Your task to perform on an android device: Search for asus rog on ebay, select the first entry, and add it to the cart. Image 0: 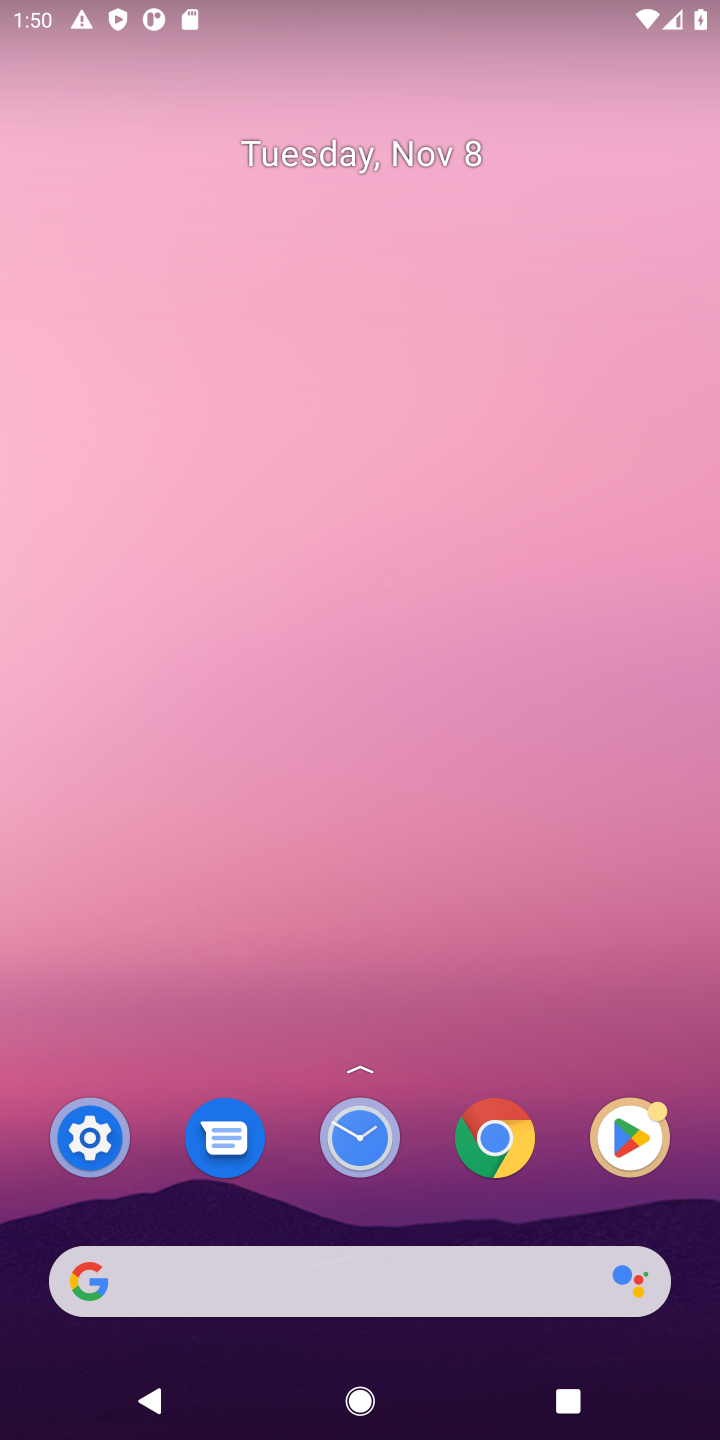
Step 0: click (511, 1148)
Your task to perform on an android device: Search for asus rog on ebay, select the first entry, and add it to the cart. Image 1: 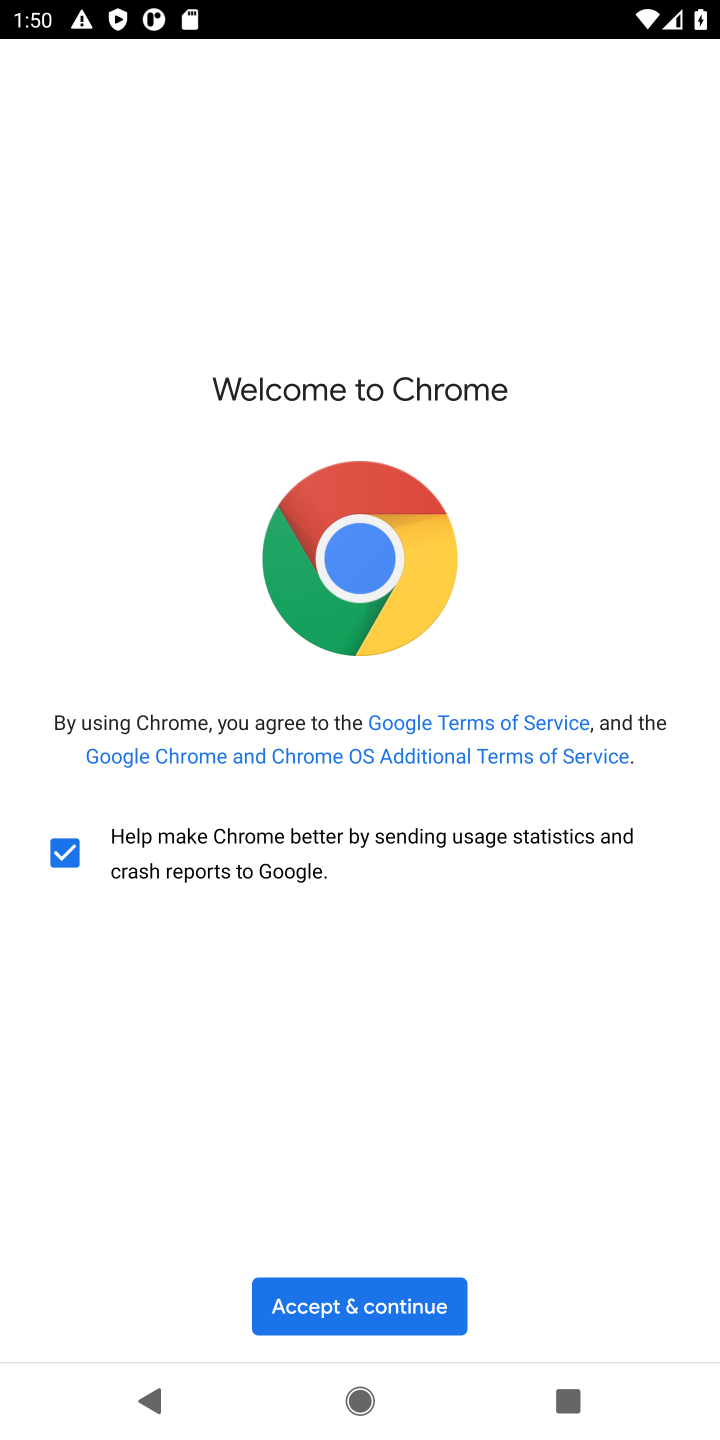
Step 1: click (366, 1320)
Your task to perform on an android device: Search for asus rog on ebay, select the first entry, and add it to the cart. Image 2: 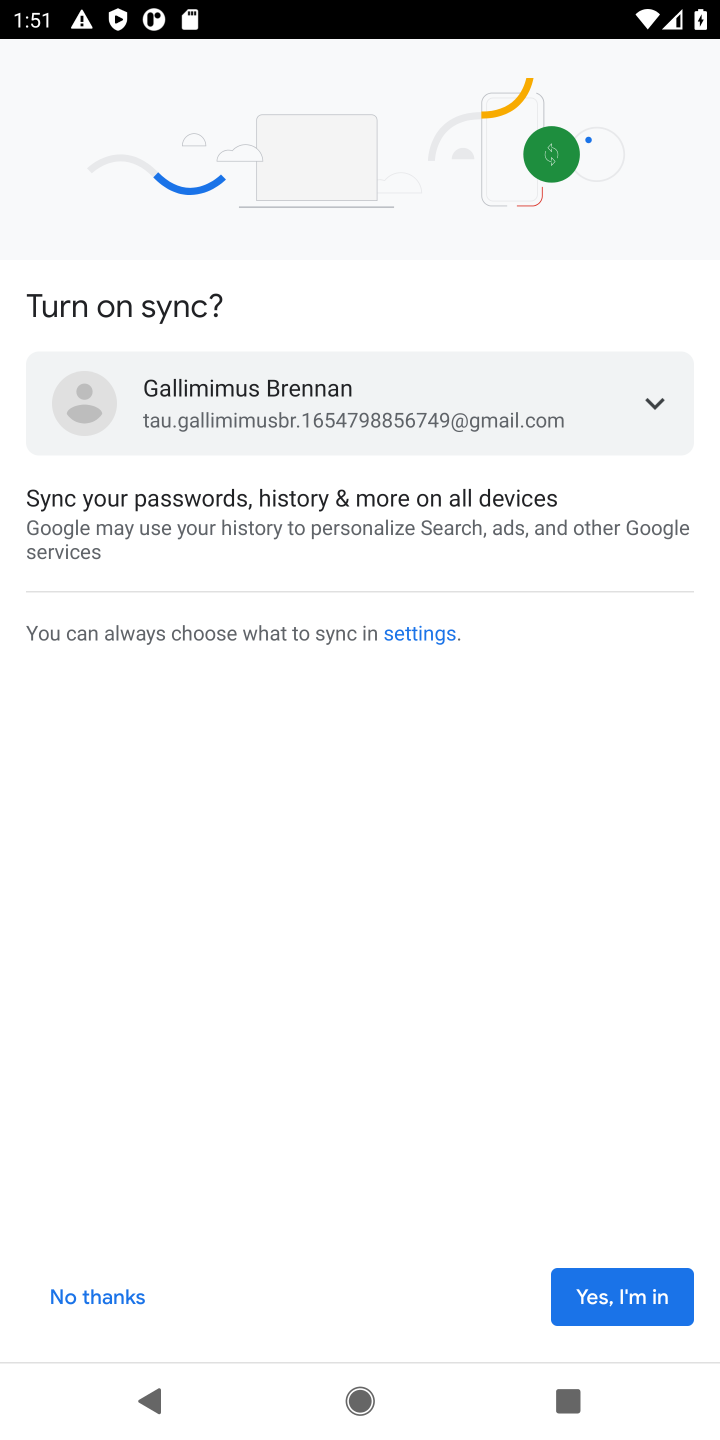
Step 2: click (642, 1313)
Your task to perform on an android device: Search for asus rog on ebay, select the first entry, and add it to the cart. Image 3: 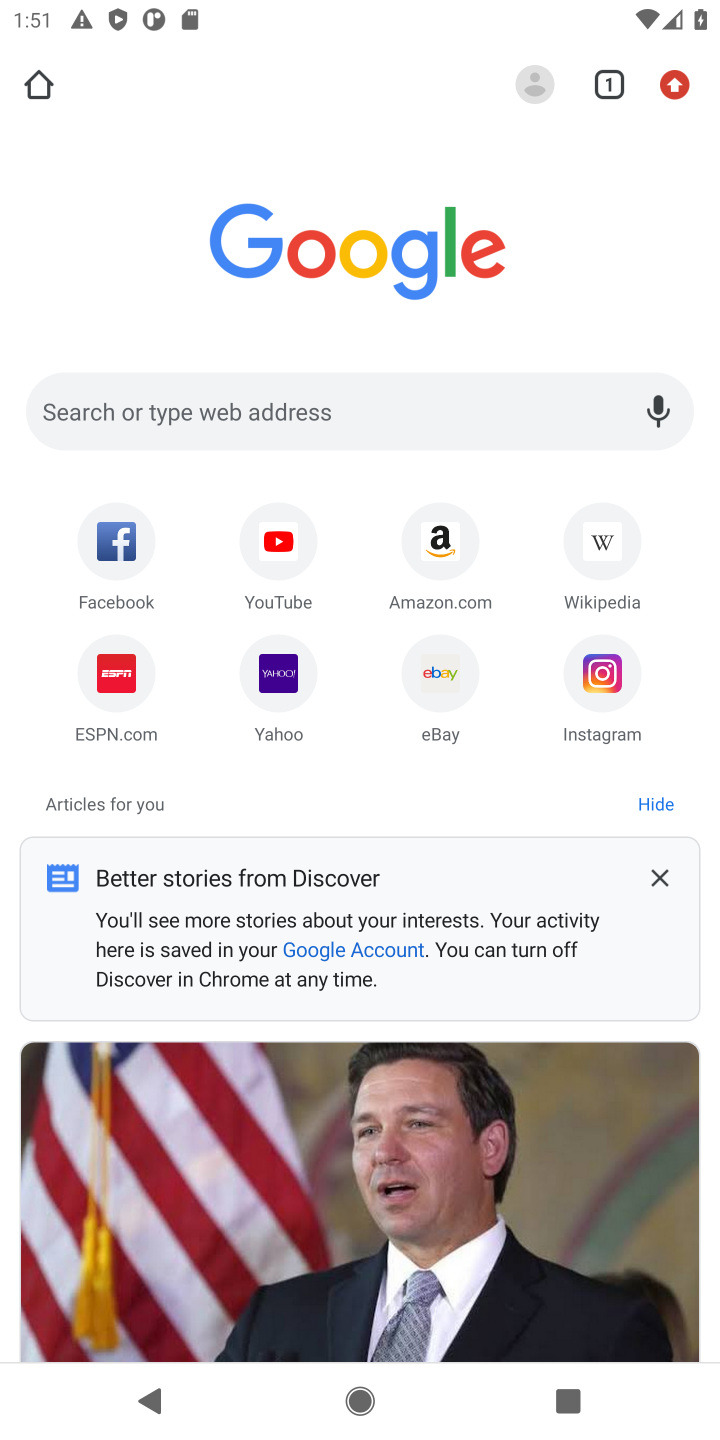
Step 3: click (467, 420)
Your task to perform on an android device: Search for asus rog on ebay, select the first entry, and add it to the cart. Image 4: 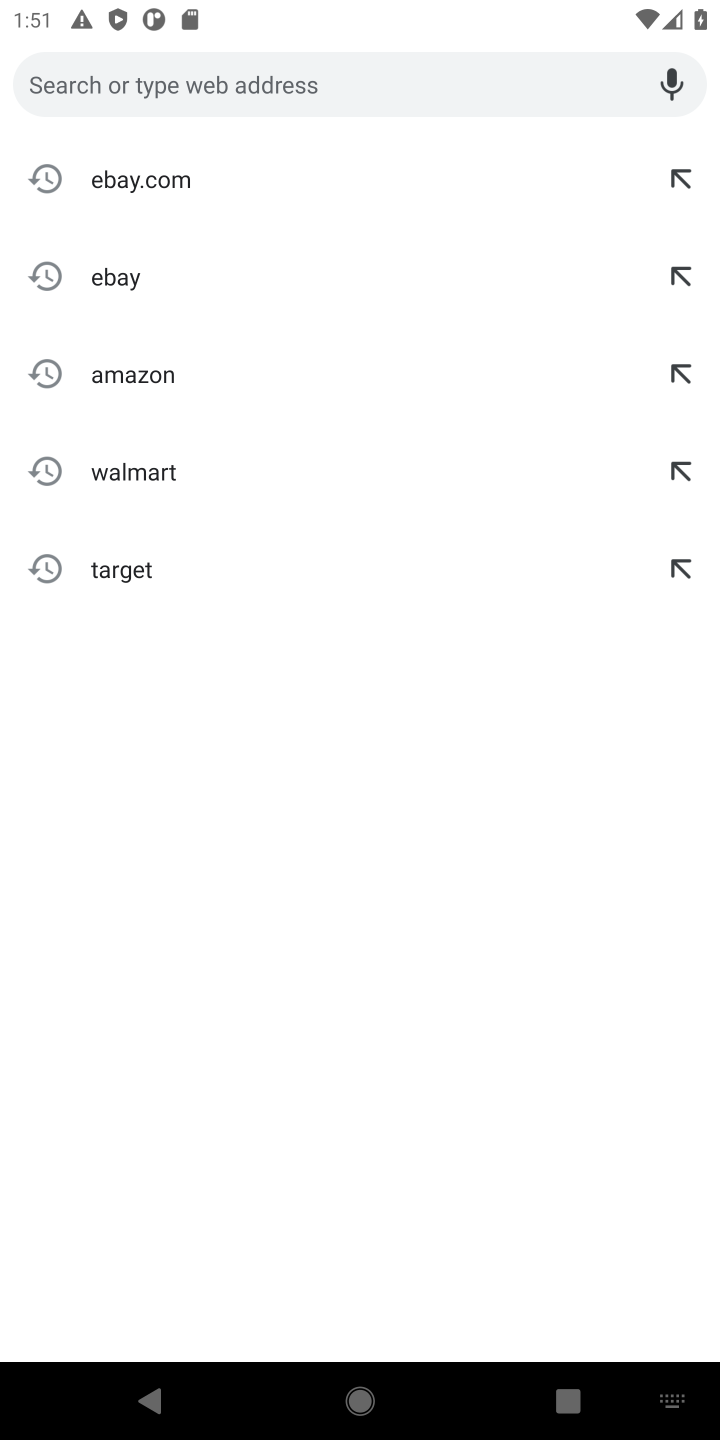
Step 4: click (131, 272)
Your task to perform on an android device: Search for asus rog on ebay, select the first entry, and add it to the cart. Image 5: 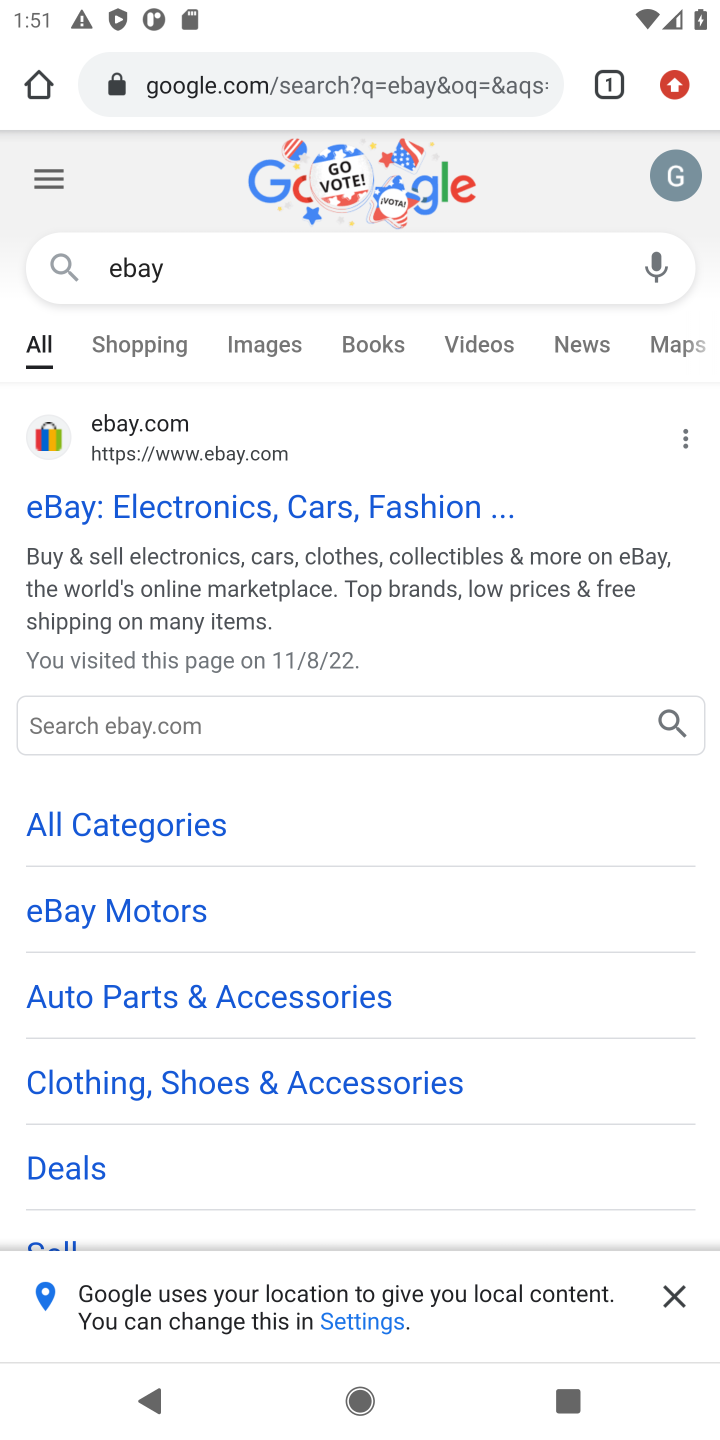
Step 5: click (193, 471)
Your task to perform on an android device: Search for asus rog on ebay, select the first entry, and add it to the cart. Image 6: 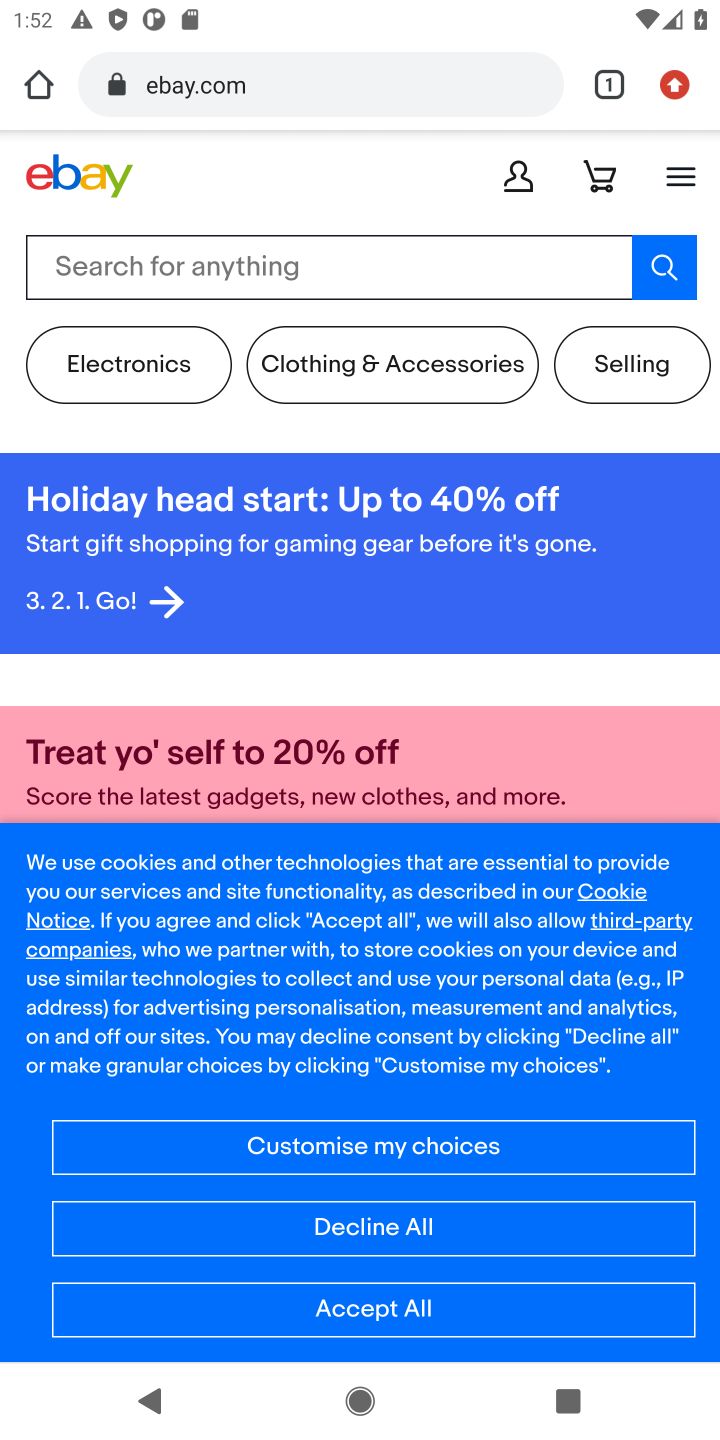
Step 6: click (304, 277)
Your task to perform on an android device: Search for asus rog on ebay, select the first entry, and add it to the cart. Image 7: 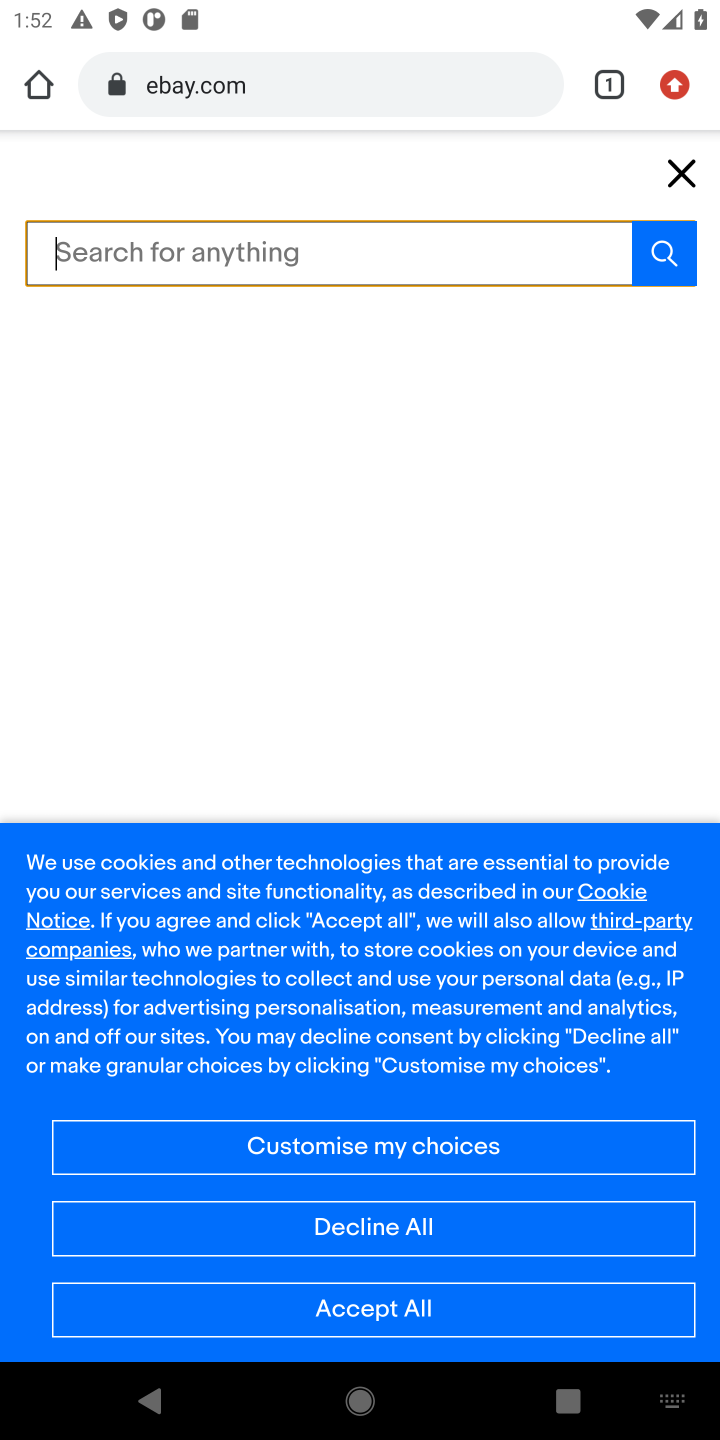
Step 7: click (390, 259)
Your task to perform on an android device: Search for asus rog on ebay, select the first entry, and add it to the cart. Image 8: 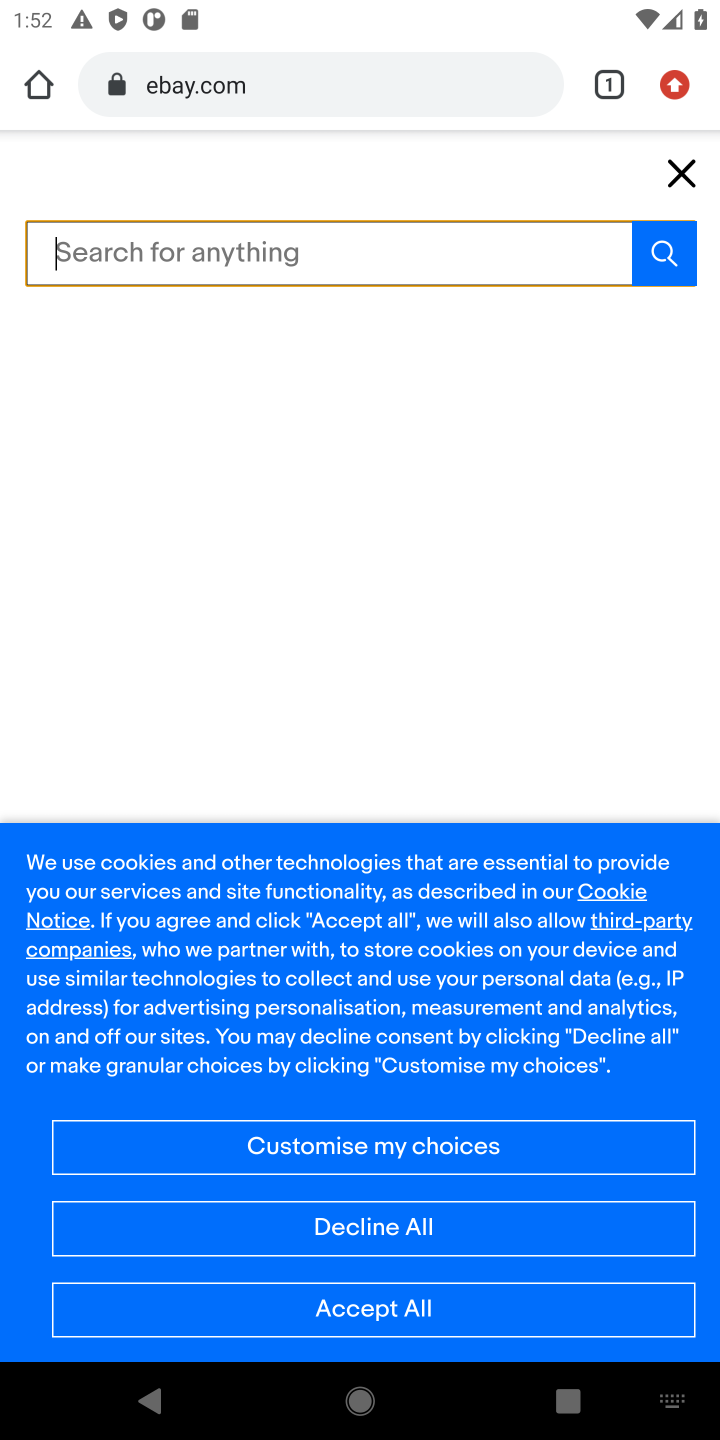
Step 8: type "asus rog"
Your task to perform on an android device: Search for asus rog on ebay, select the first entry, and add it to the cart. Image 9: 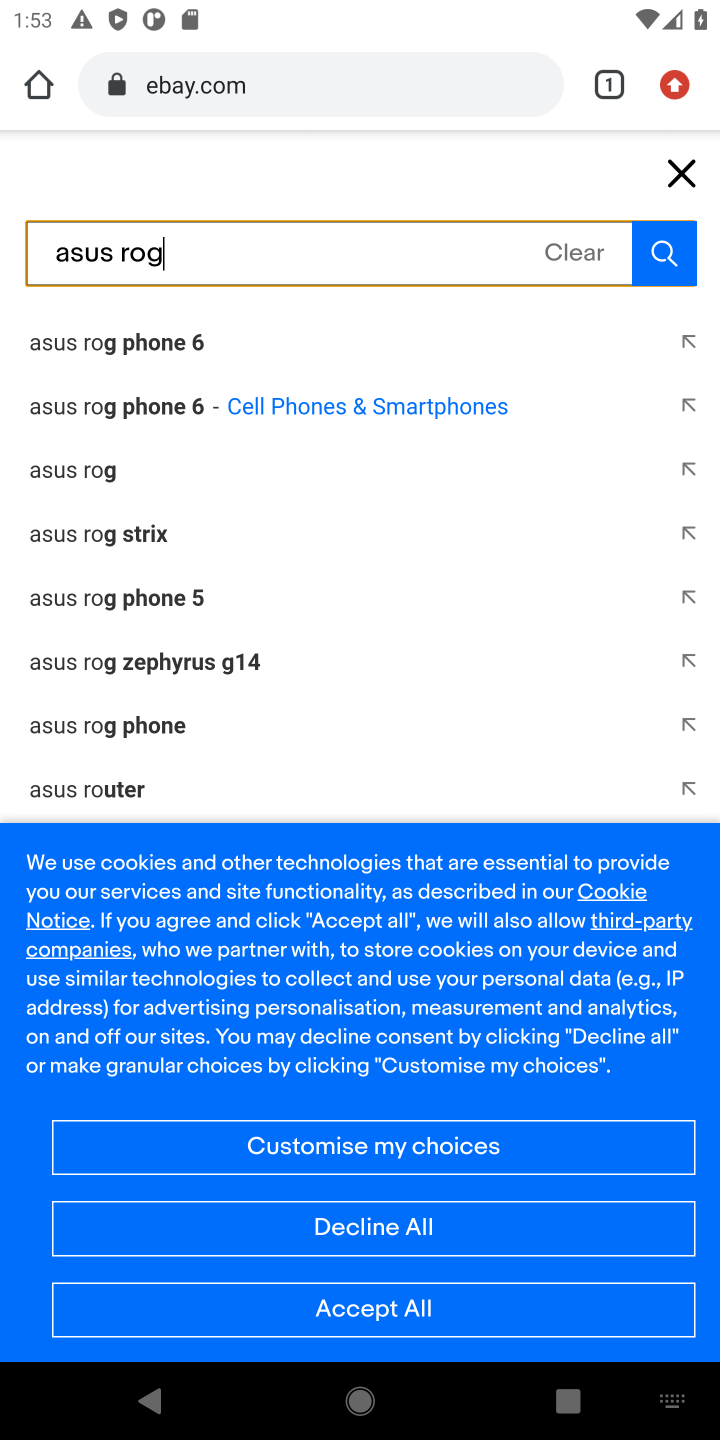
Step 9: click (111, 469)
Your task to perform on an android device: Search for asus rog on ebay, select the first entry, and add it to the cart. Image 10: 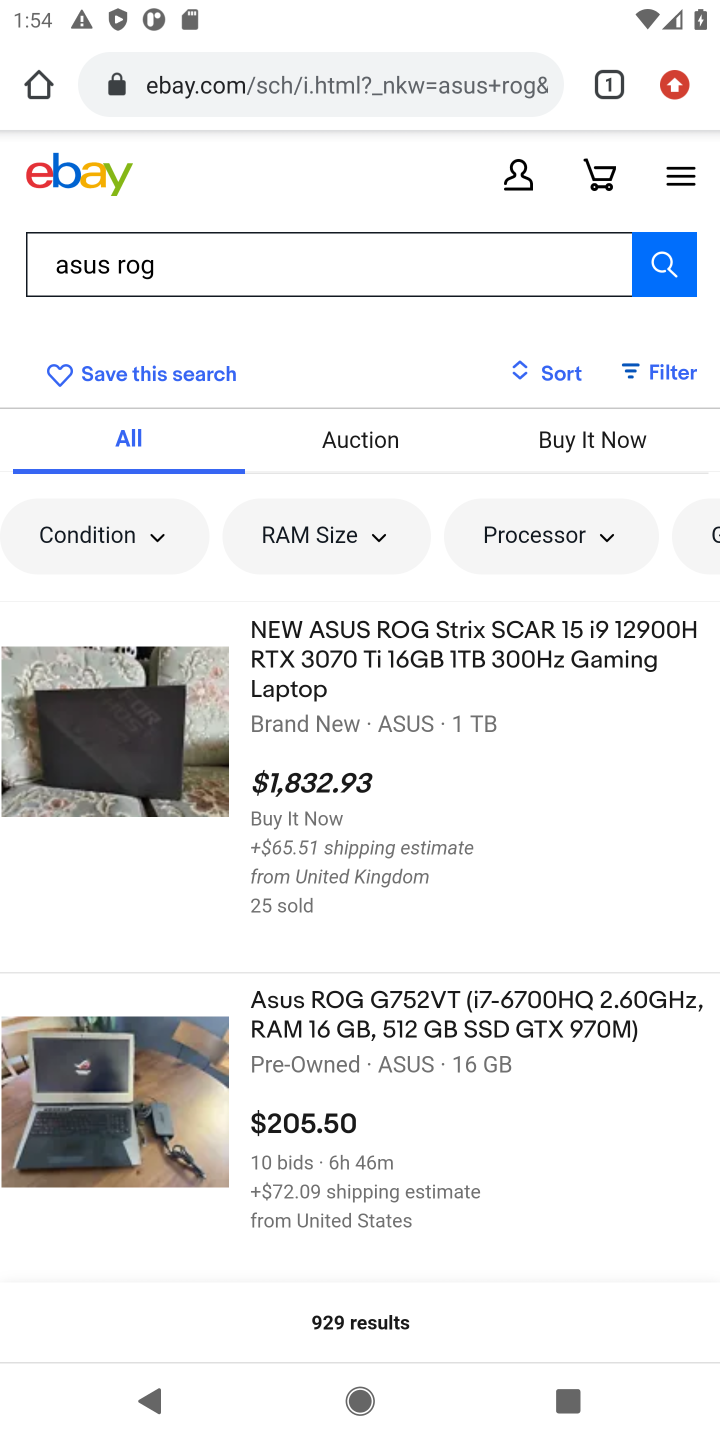
Step 10: click (112, 741)
Your task to perform on an android device: Search for asus rog on ebay, select the first entry, and add it to the cart. Image 11: 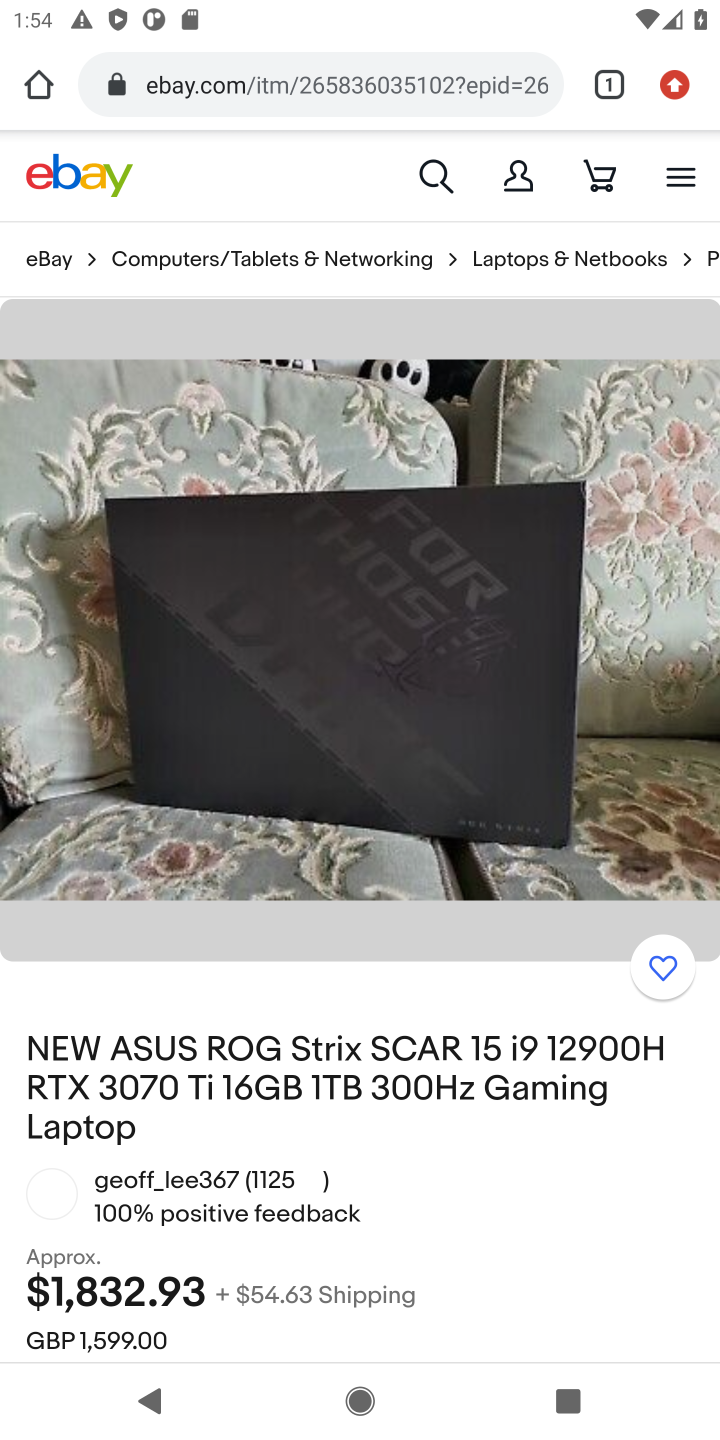
Step 11: drag from (397, 1112) to (582, 534)
Your task to perform on an android device: Search for asus rog on ebay, select the first entry, and add it to the cart. Image 12: 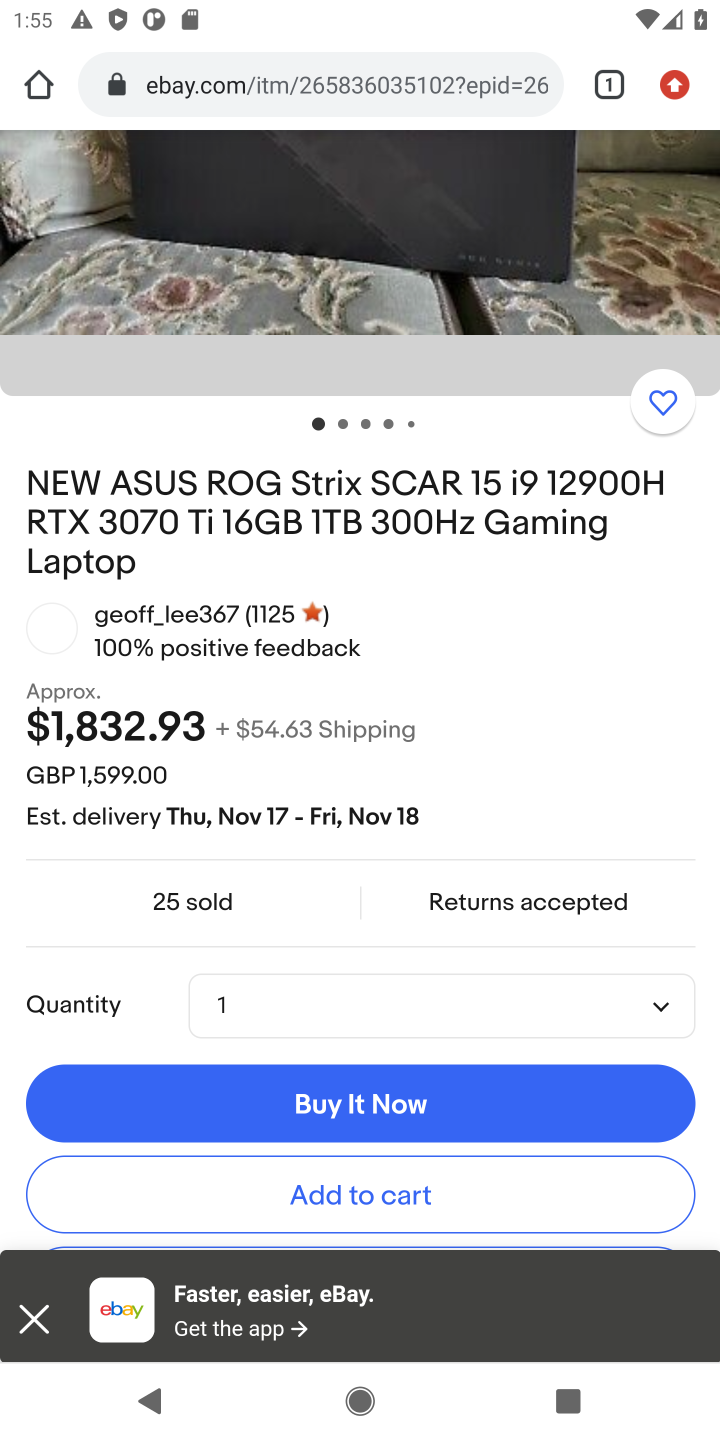
Step 12: click (456, 1198)
Your task to perform on an android device: Search for asus rog on ebay, select the first entry, and add it to the cart. Image 13: 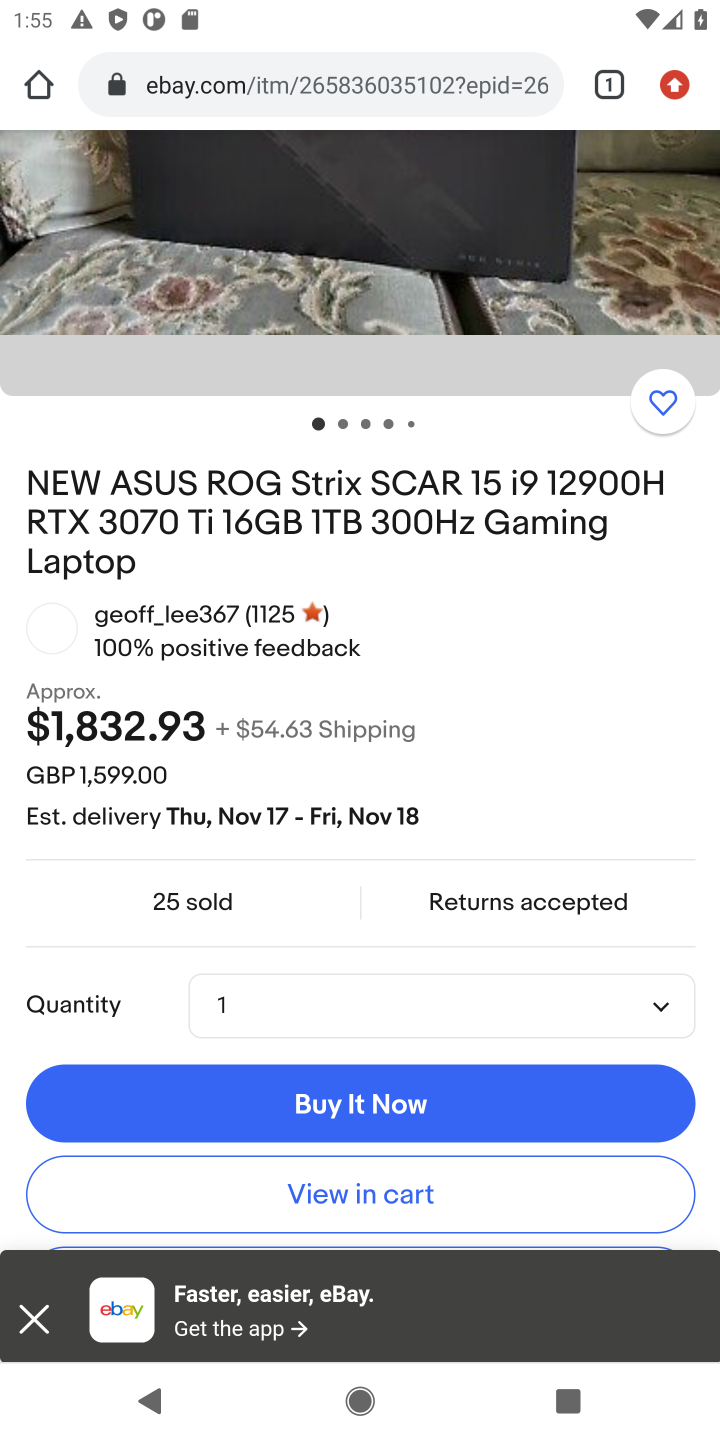
Step 13: task complete